Your task to perform on an android device: toggle pop-ups in chrome Image 0: 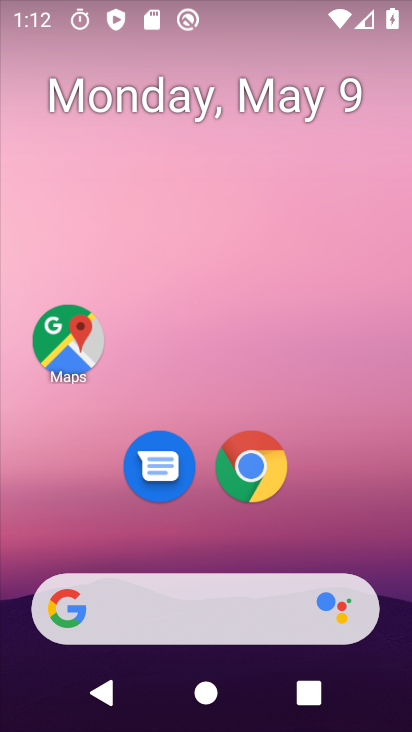
Step 0: click (263, 466)
Your task to perform on an android device: toggle pop-ups in chrome Image 1: 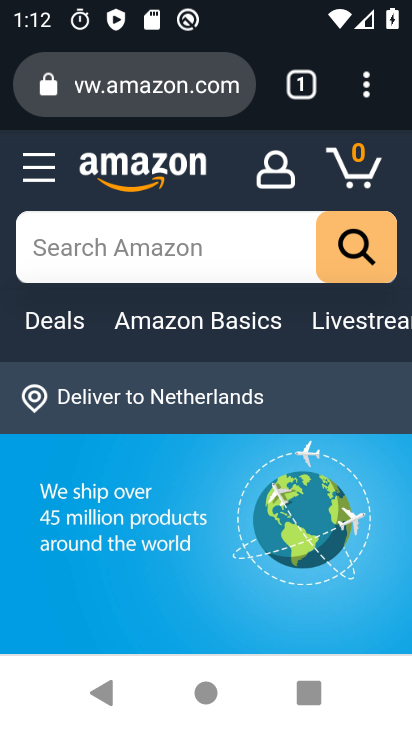
Step 1: click (371, 91)
Your task to perform on an android device: toggle pop-ups in chrome Image 2: 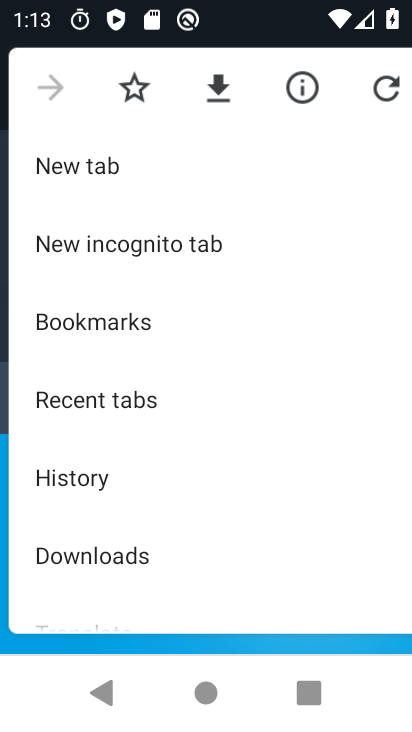
Step 2: drag from (227, 428) to (242, 8)
Your task to perform on an android device: toggle pop-ups in chrome Image 3: 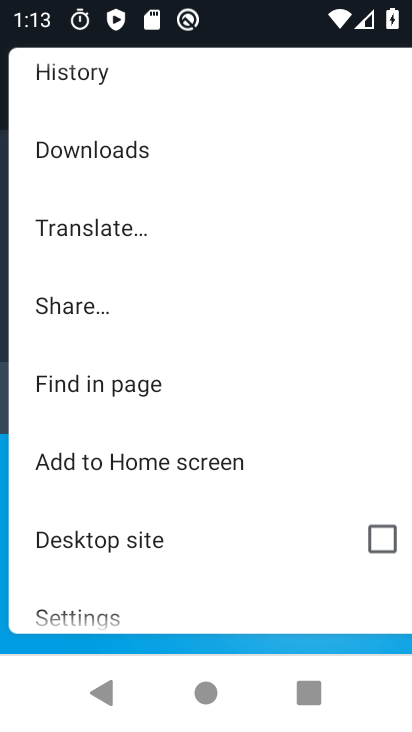
Step 3: drag from (113, 555) to (110, 315)
Your task to perform on an android device: toggle pop-ups in chrome Image 4: 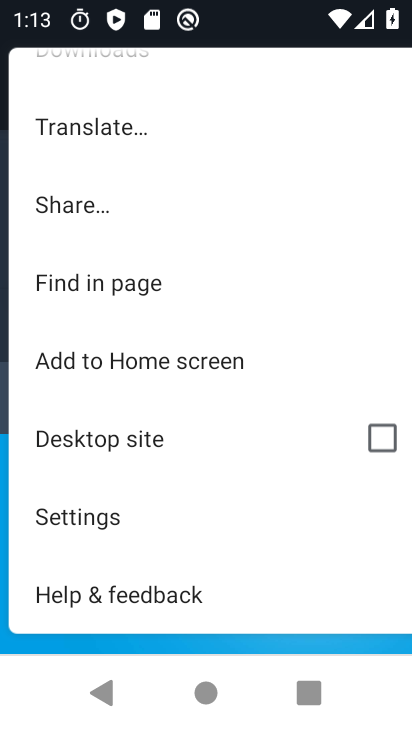
Step 4: click (102, 539)
Your task to perform on an android device: toggle pop-ups in chrome Image 5: 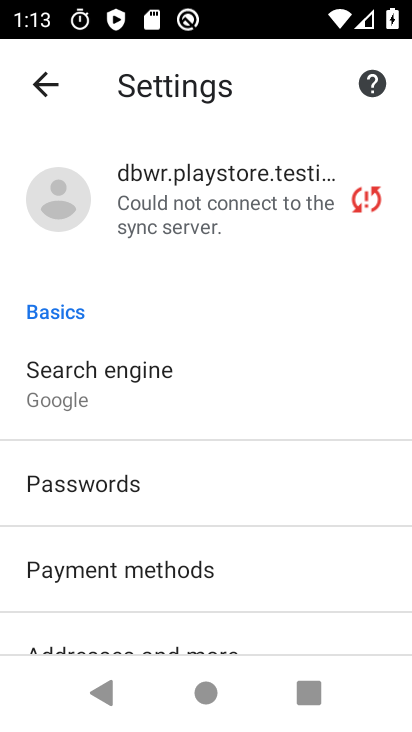
Step 5: drag from (121, 621) to (154, 154)
Your task to perform on an android device: toggle pop-ups in chrome Image 6: 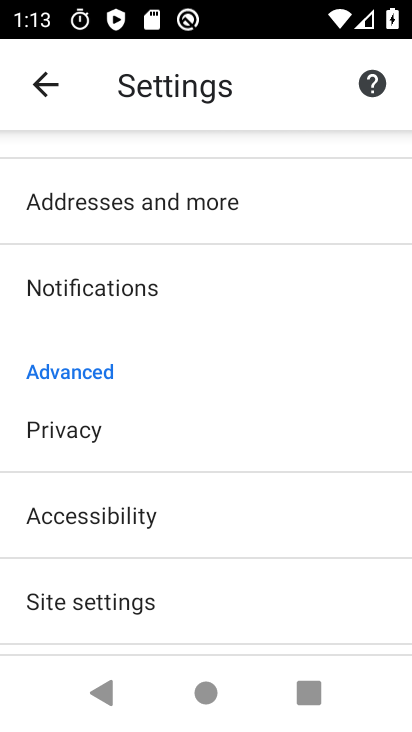
Step 6: drag from (165, 578) to (157, 416)
Your task to perform on an android device: toggle pop-ups in chrome Image 7: 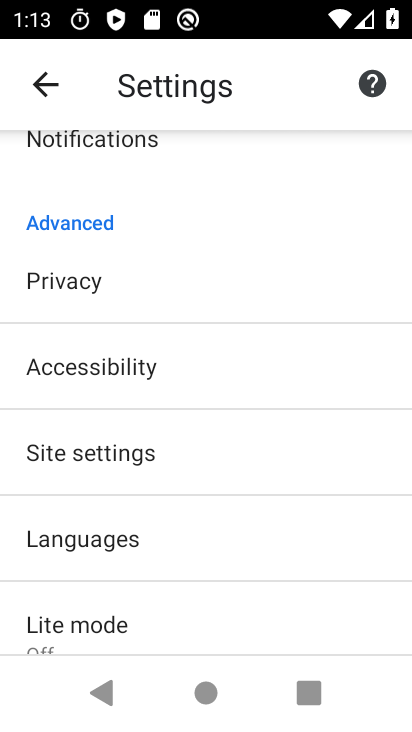
Step 7: drag from (165, 573) to (137, 399)
Your task to perform on an android device: toggle pop-ups in chrome Image 8: 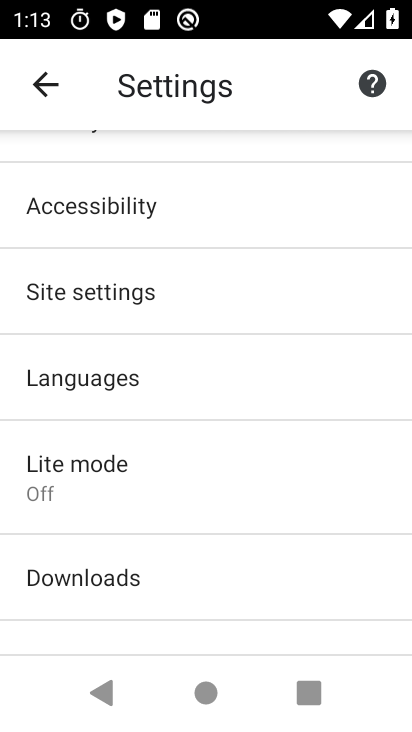
Step 8: drag from (157, 481) to (162, 388)
Your task to perform on an android device: toggle pop-ups in chrome Image 9: 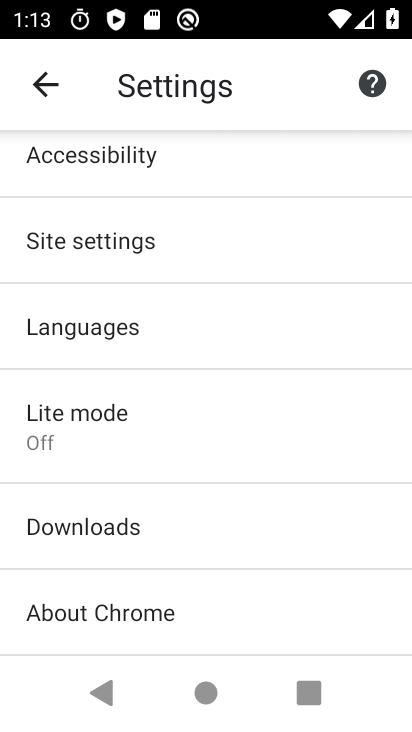
Step 9: click (146, 252)
Your task to perform on an android device: toggle pop-ups in chrome Image 10: 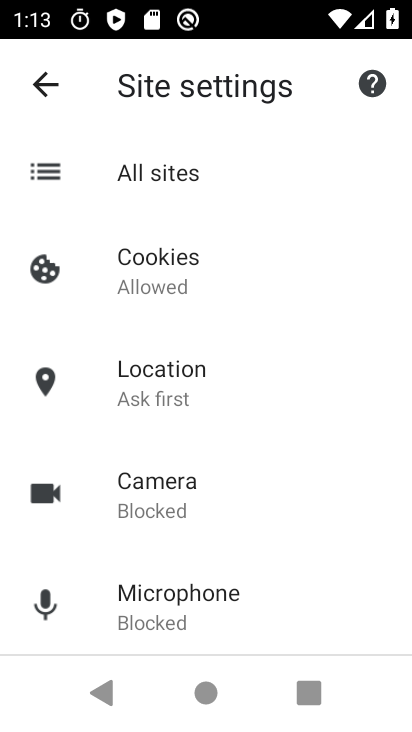
Step 10: drag from (160, 593) to (188, 305)
Your task to perform on an android device: toggle pop-ups in chrome Image 11: 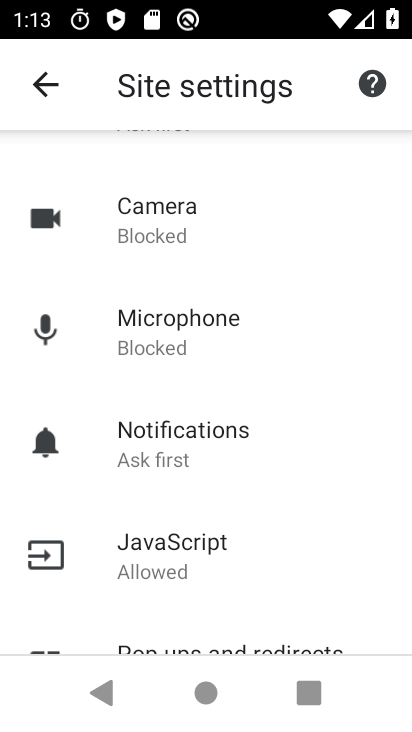
Step 11: drag from (130, 613) to (159, 401)
Your task to perform on an android device: toggle pop-ups in chrome Image 12: 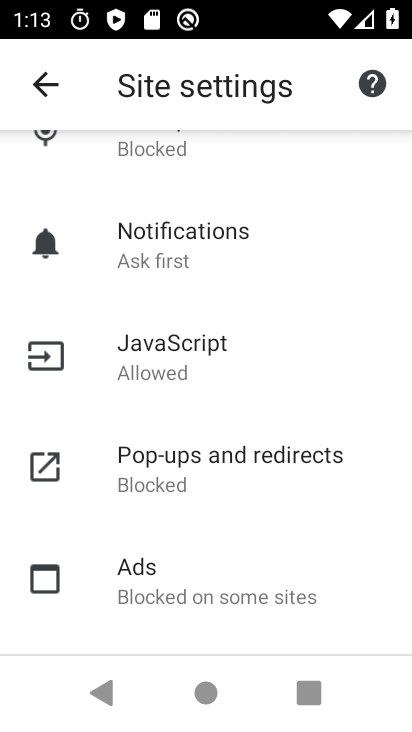
Step 12: click (165, 469)
Your task to perform on an android device: toggle pop-ups in chrome Image 13: 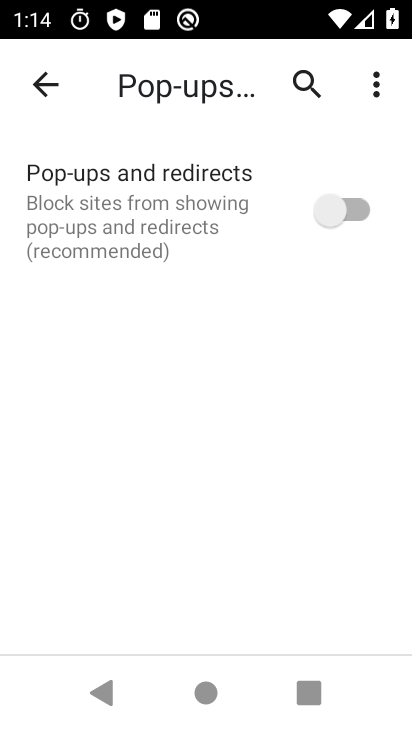
Step 13: click (241, 223)
Your task to perform on an android device: toggle pop-ups in chrome Image 14: 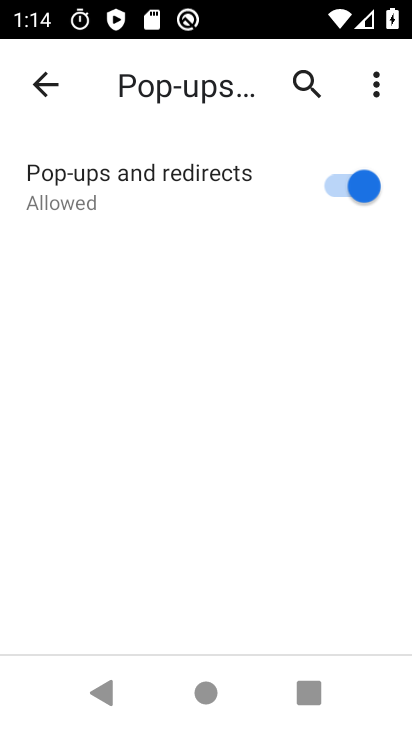
Step 14: task complete